Your task to perform on an android device: toggle data saver in the chrome app Image 0: 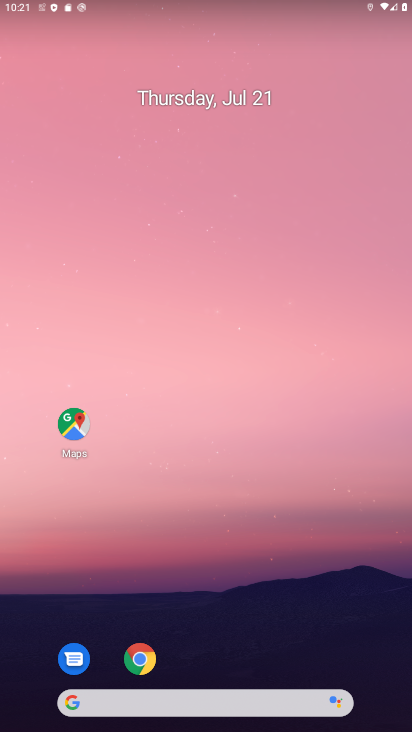
Step 0: drag from (206, 671) to (254, 110)
Your task to perform on an android device: toggle data saver in the chrome app Image 1: 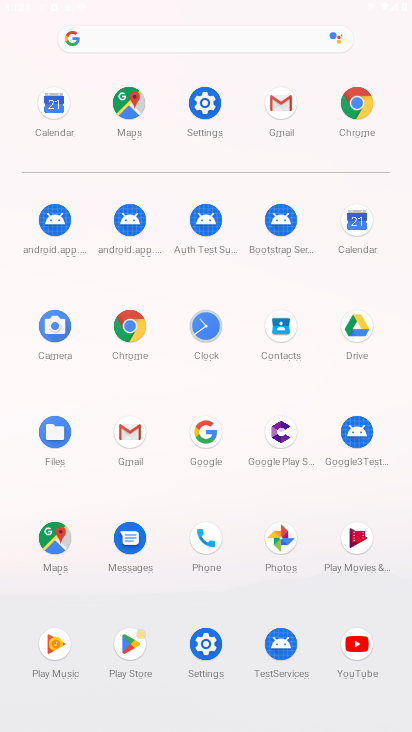
Step 1: click (373, 103)
Your task to perform on an android device: toggle data saver in the chrome app Image 2: 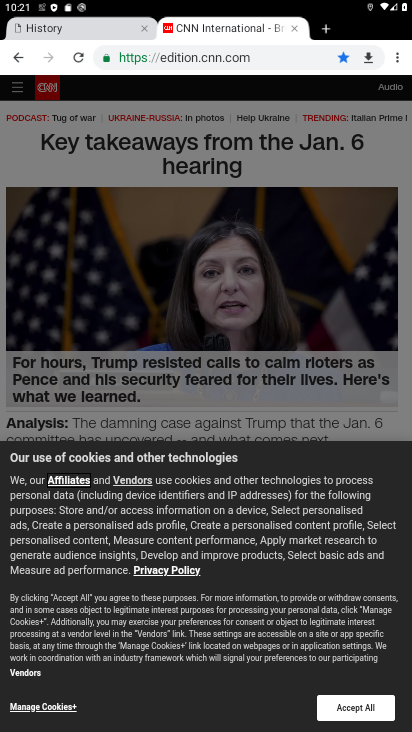
Step 2: click (396, 61)
Your task to perform on an android device: toggle data saver in the chrome app Image 3: 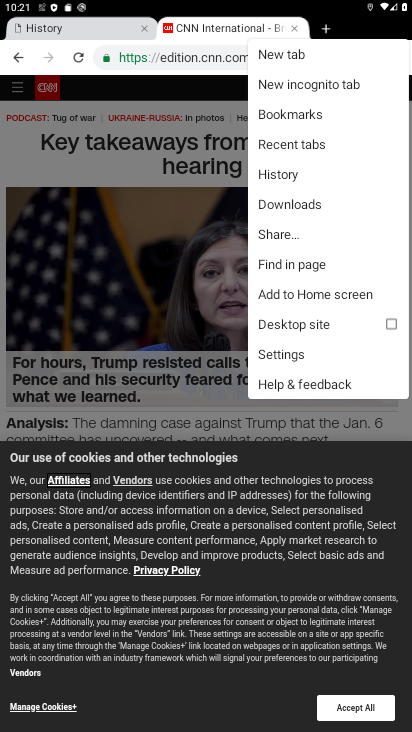
Step 3: click (270, 347)
Your task to perform on an android device: toggle data saver in the chrome app Image 4: 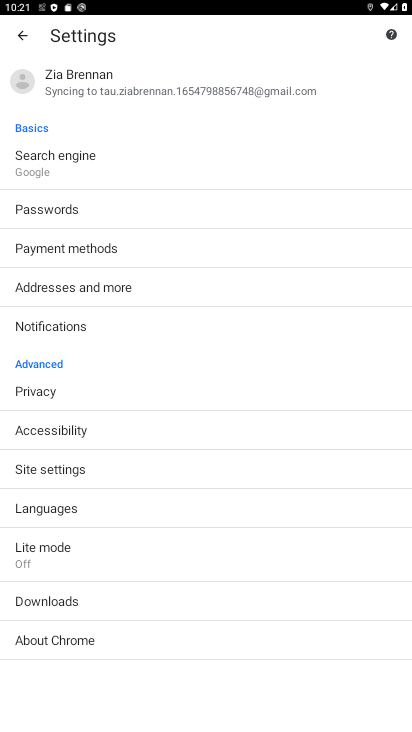
Step 4: click (40, 558)
Your task to perform on an android device: toggle data saver in the chrome app Image 5: 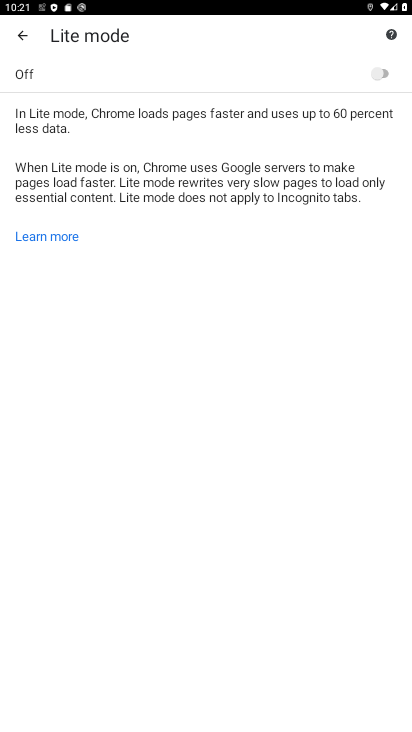
Step 5: click (377, 83)
Your task to perform on an android device: toggle data saver in the chrome app Image 6: 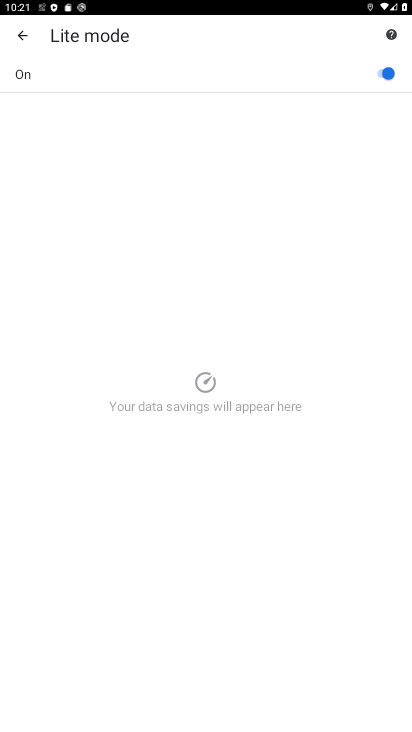
Step 6: task complete